Your task to perform on an android device: add a contact in the contacts app Image 0: 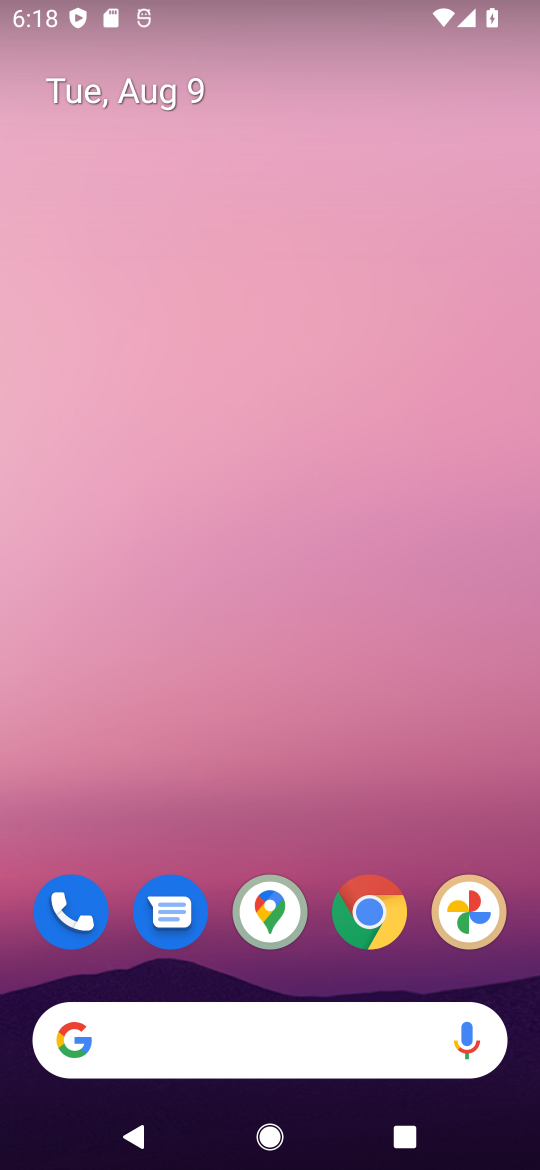
Step 0: press home button
Your task to perform on an android device: add a contact in the contacts app Image 1: 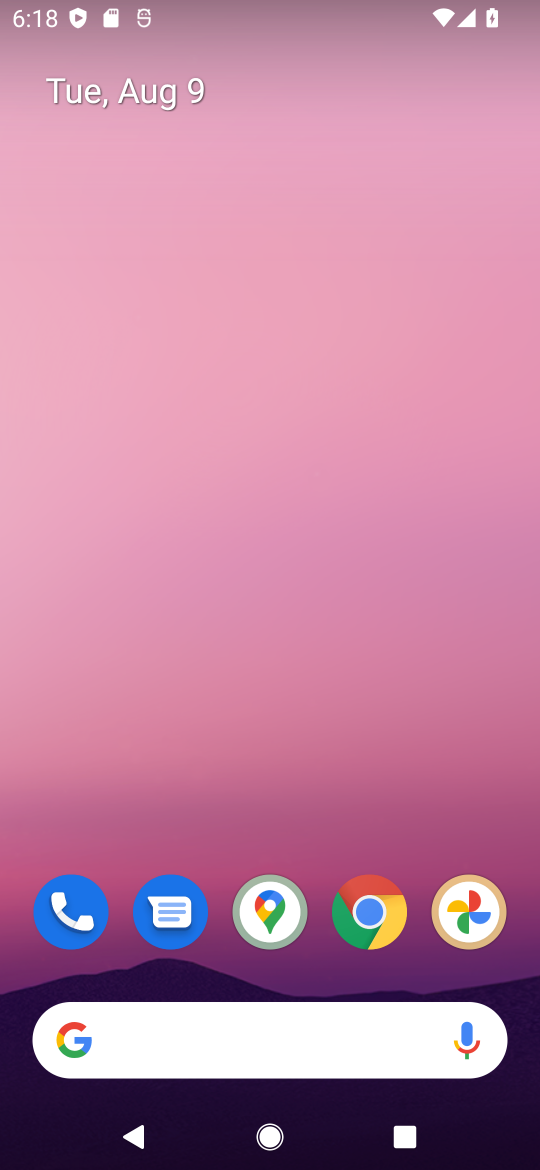
Step 1: drag from (325, 820) to (399, 2)
Your task to perform on an android device: add a contact in the contacts app Image 2: 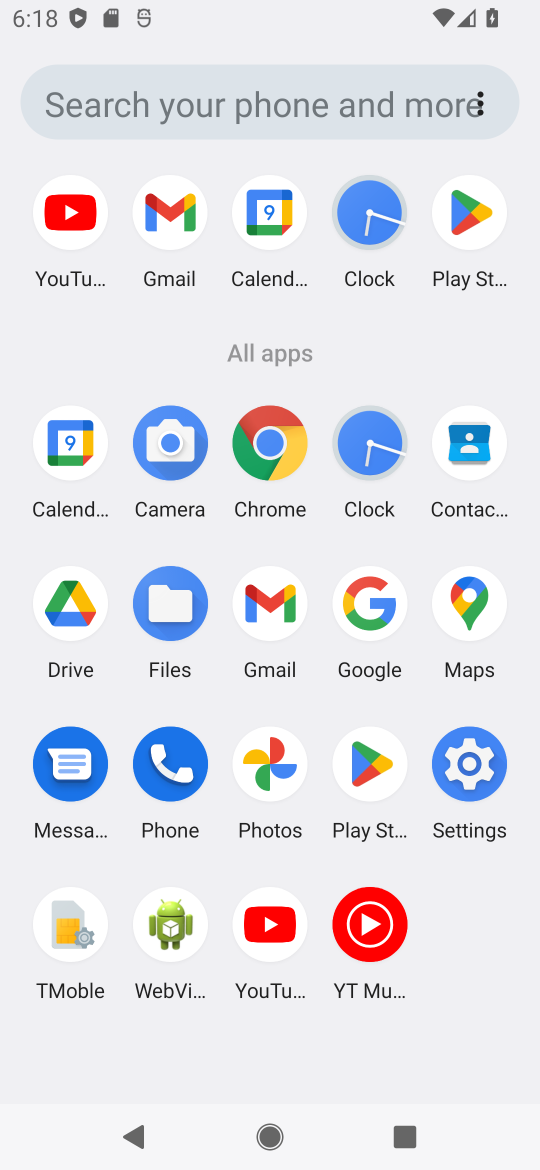
Step 2: click (458, 447)
Your task to perform on an android device: add a contact in the contacts app Image 3: 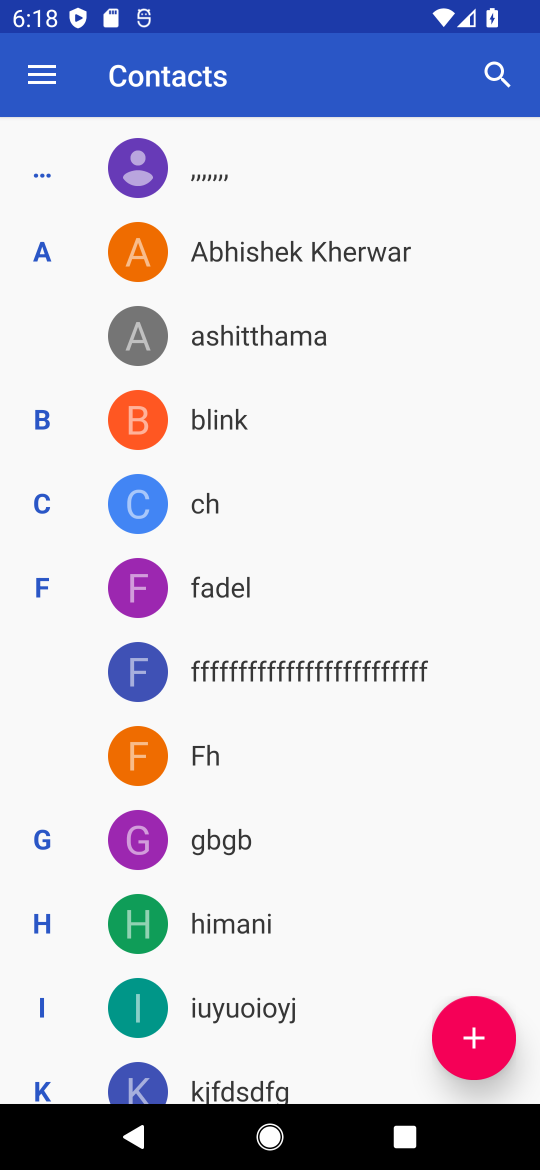
Step 3: click (487, 1041)
Your task to perform on an android device: add a contact in the contacts app Image 4: 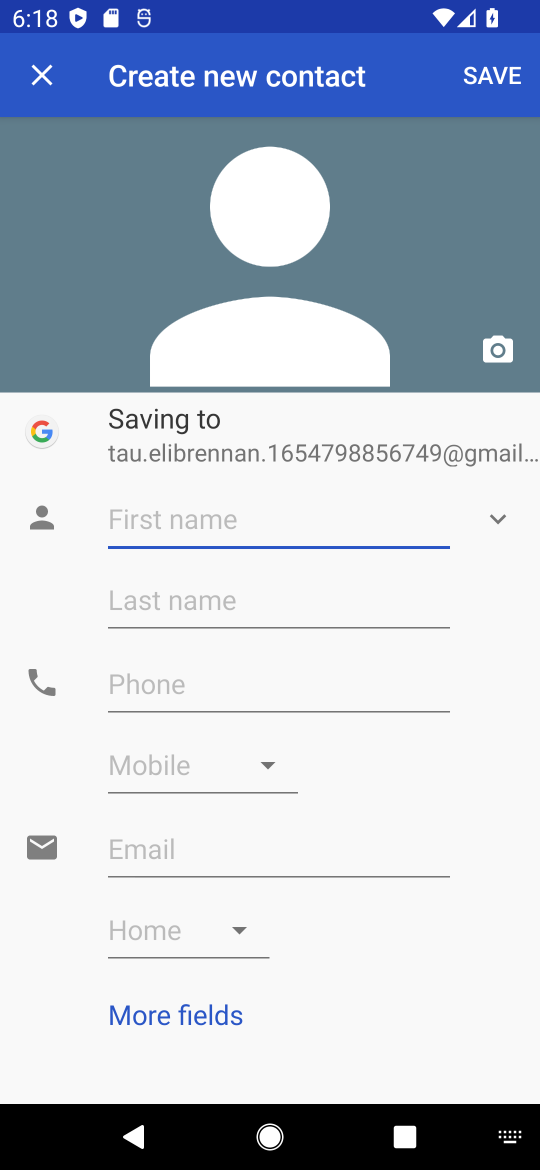
Step 4: click (223, 512)
Your task to perform on an android device: add a contact in the contacts app Image 5: 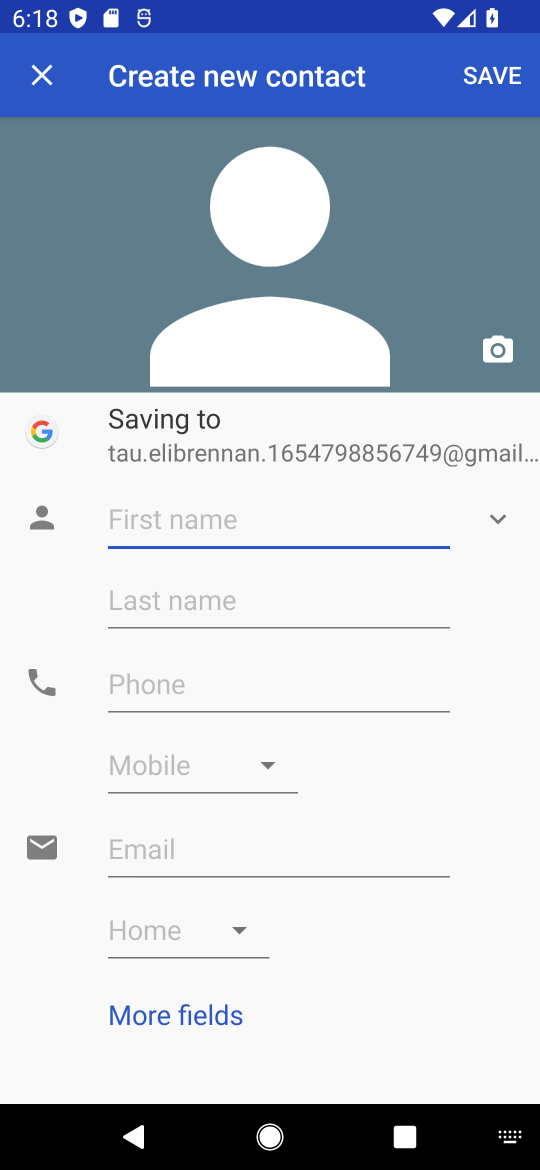
Step 5: type "ggggjjhjhjhhj"
Your task to perform on an android device: add a contact in the contacts app Image 6: 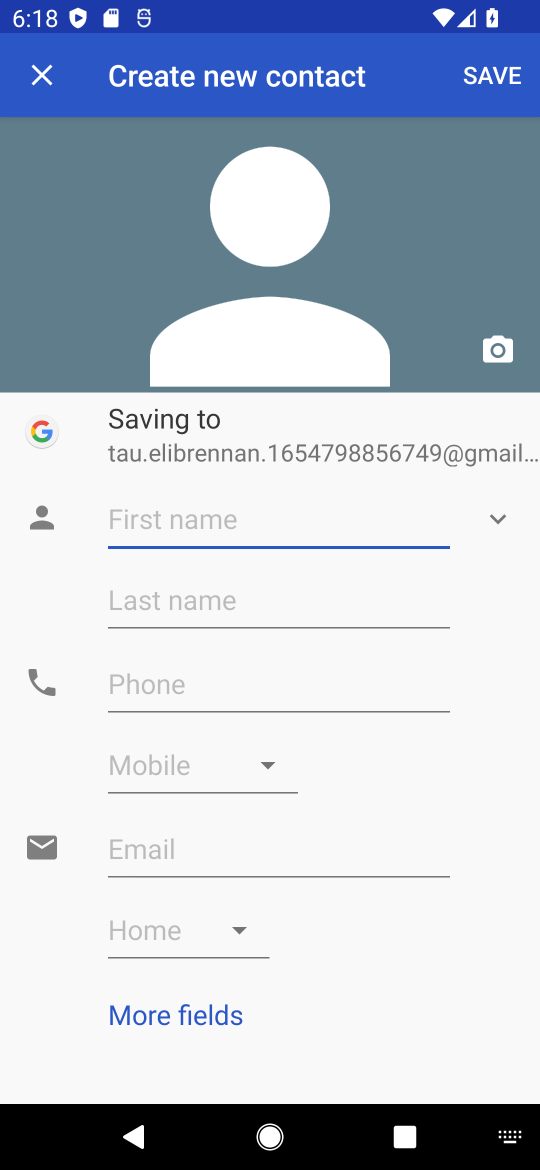
Step 6: click (190, 517)
Your task to perform on an android device: add a contact in the contacts app Image 7: 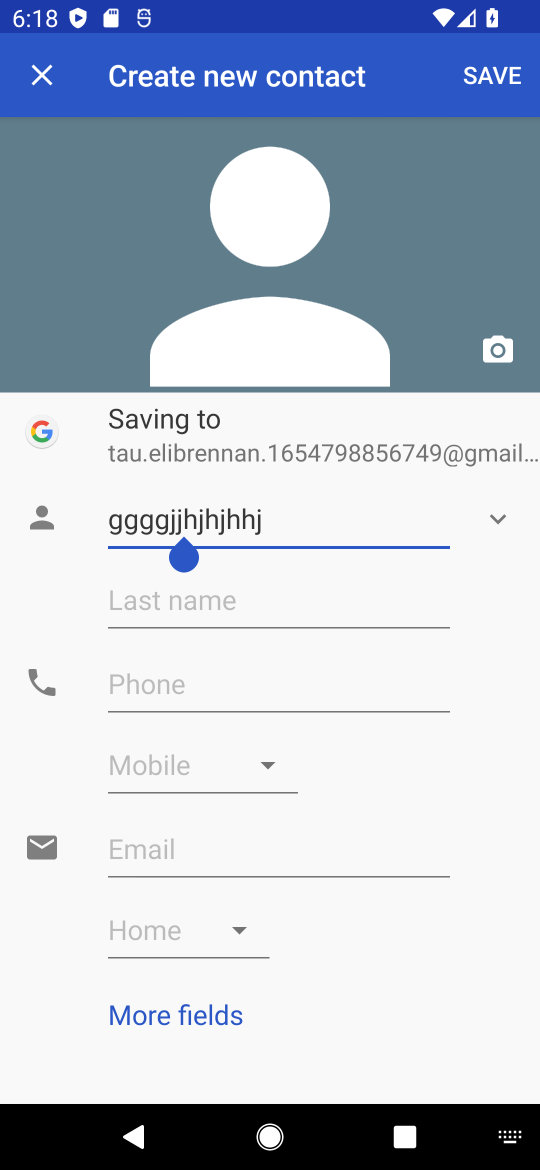
Step 7: click (207, 680)
Your task to perform on an android device: add a contact in the contacts app Image 8: 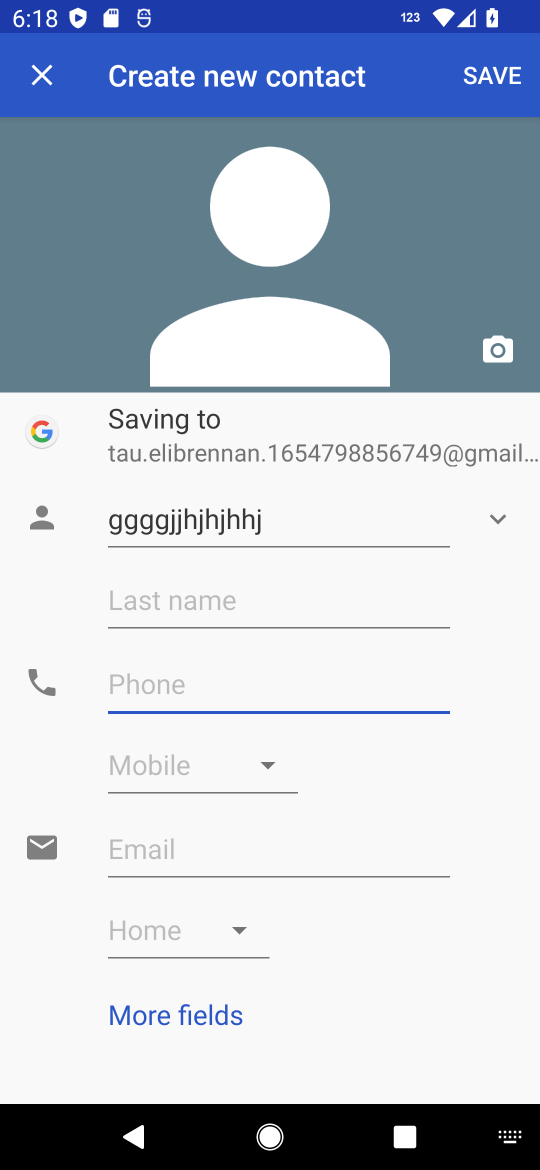
Step 8: type "787878778"
Your task to perform on an android device: add a contact in the contacts app Image 9: 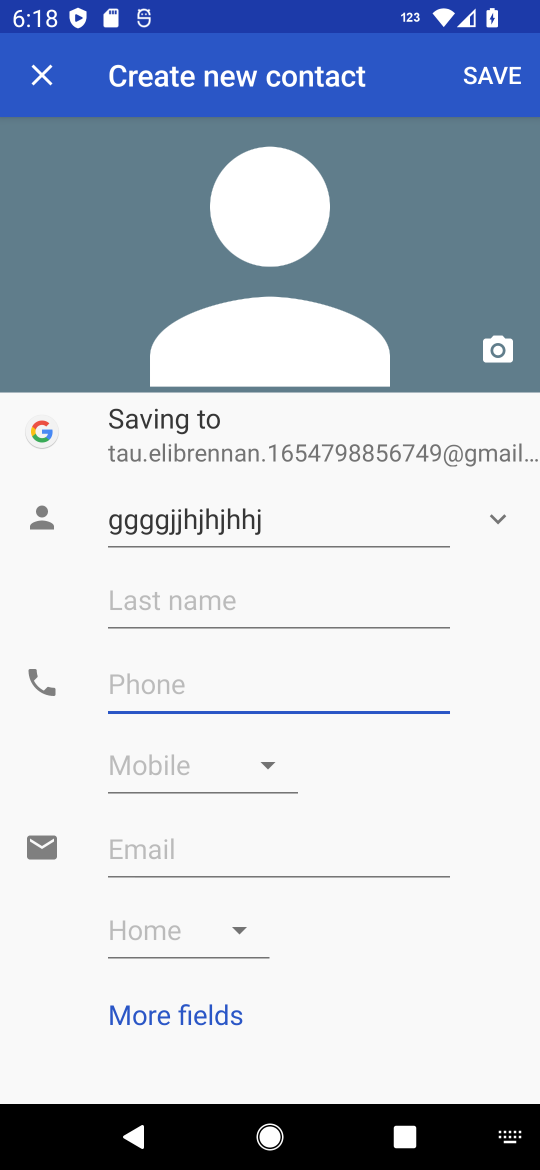
Step 9: click (261, 688)
Your task to perform on an android device: add a contact in the contacts app Image 10: 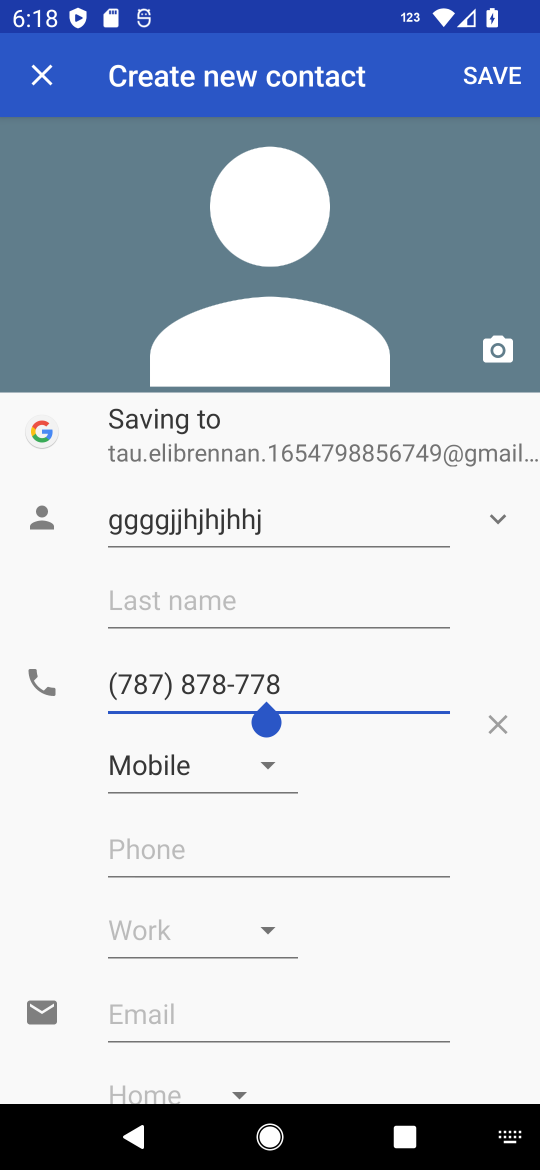
Step 10: click (485, 89)
Your task to perform on an android device: add a contact in the contacts app Image 11: 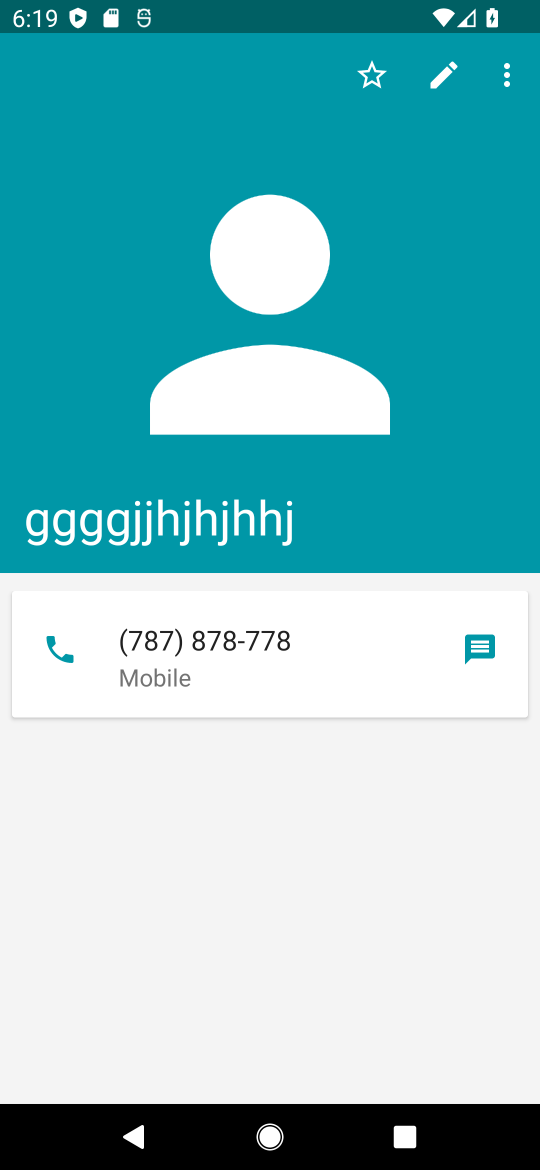
Step 11: task complete